Your task to perform on an android device: Open the stopwatch Image 0: 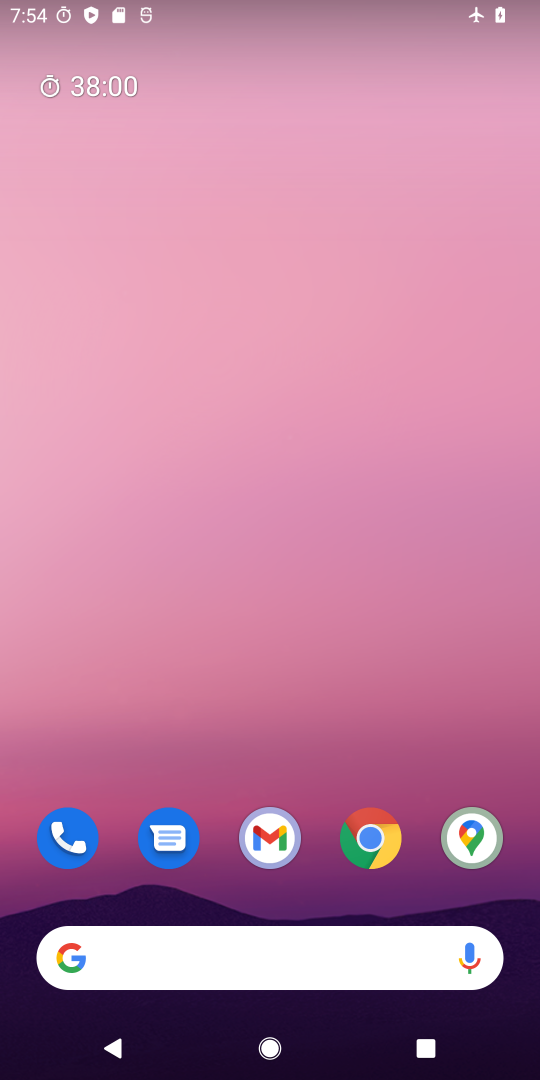
Step 0: press home button
Your task to perform on an android device: Open the stopwatch Image 1: 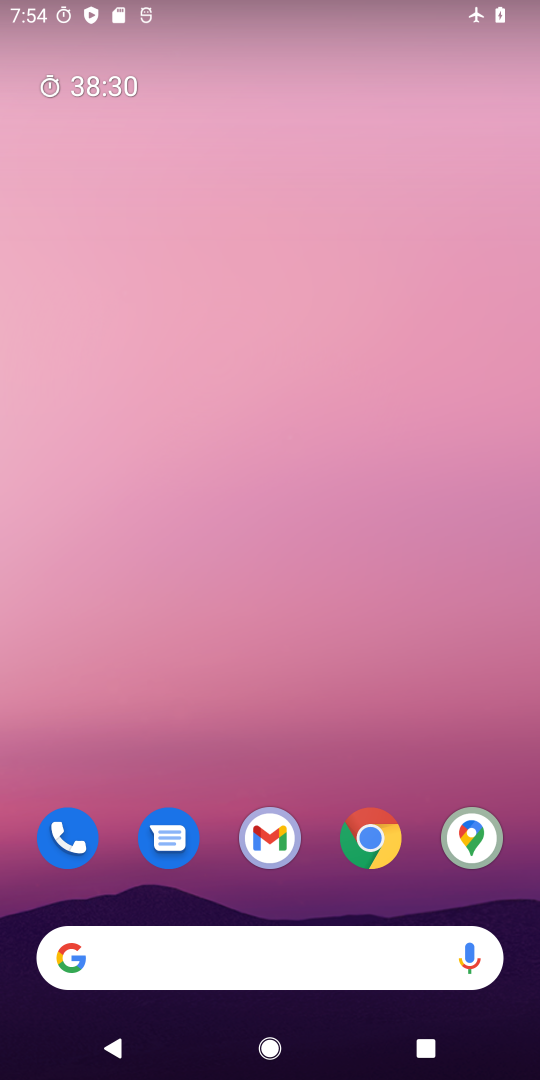
Step 1: drag from (310, 906) to (203, 184)
Your task to perform on an android device: Open the stopwatch Image 2: 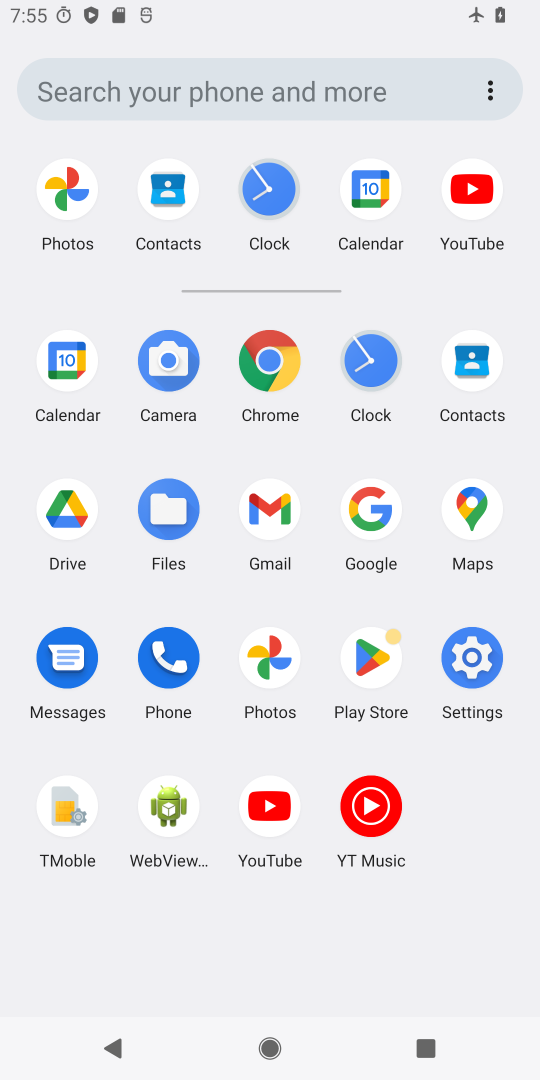
Step 2: click (362, 387)
Your task to perform on an android device: Open the stopwatch Image 3: 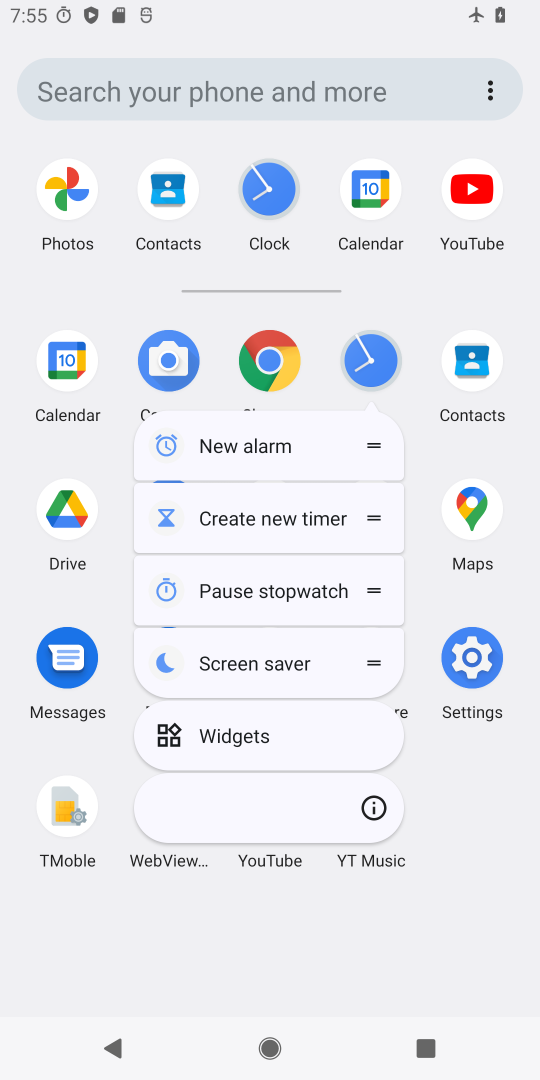
Step 3: click (362, 387)
Your task to perform on an android device: Open the stopwatch Image 4: 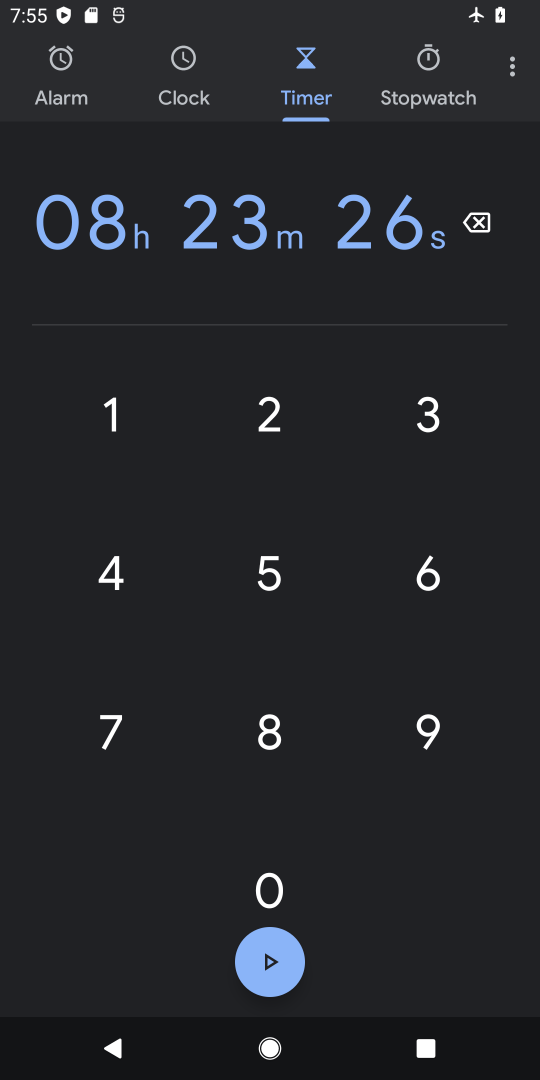
Step 4: click (418, 98)
Your task to perform on an android device: Open the stopwatch Image 5: 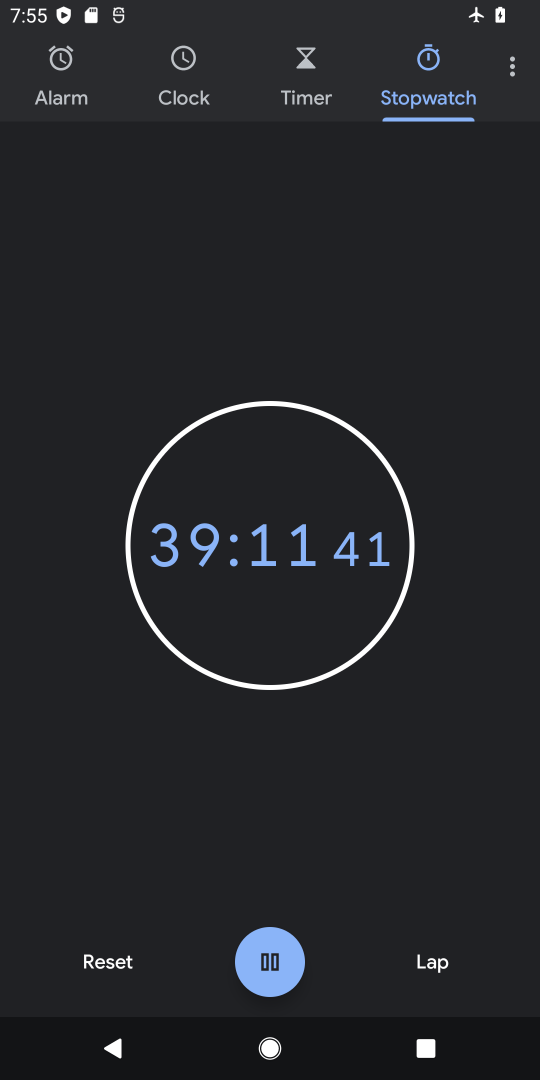
Step 5: task complete